Your task to perform on an android device: set the stopwatch Image 0: 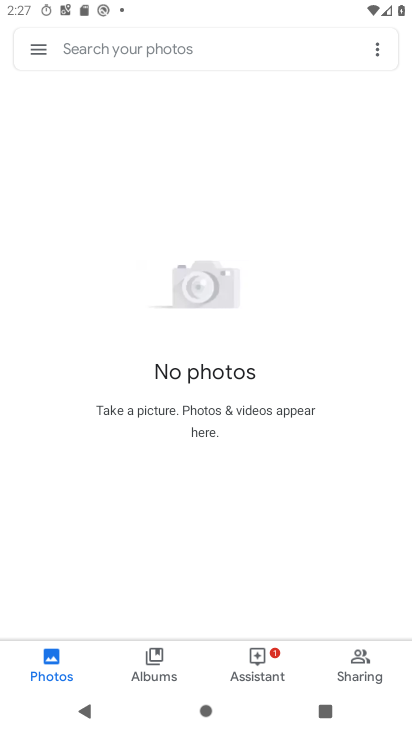
Step 0: press home button
Your task to perform on an android device: set the stopwatch Image 1: 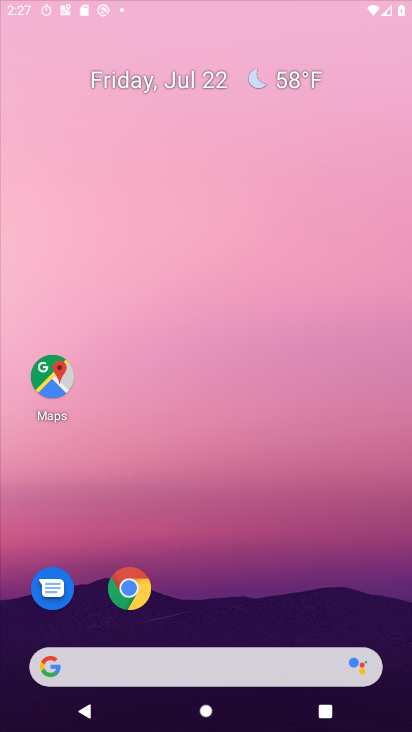
Step 1: drag from (286, 607) to (267, 255)
Your task to perform on an android device: set the stopwatch Image 2: 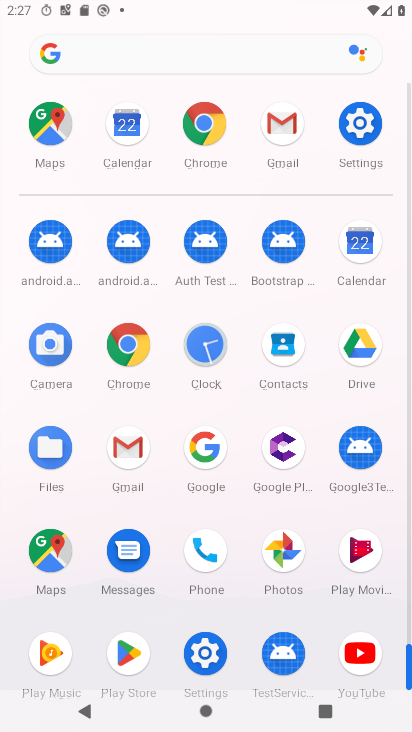
Step 2: click (191, 353)
Your task to perform on an android device: set the stopwatch Image 3: 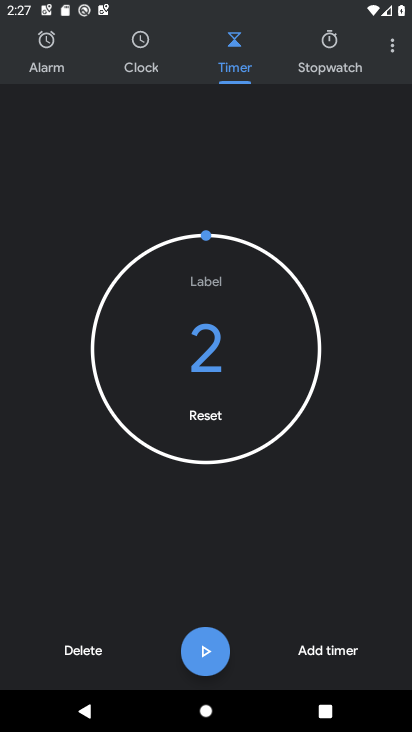
Step 3: click (300, 84)
Your task to perform on an android device: set the stopwatch Image 4: 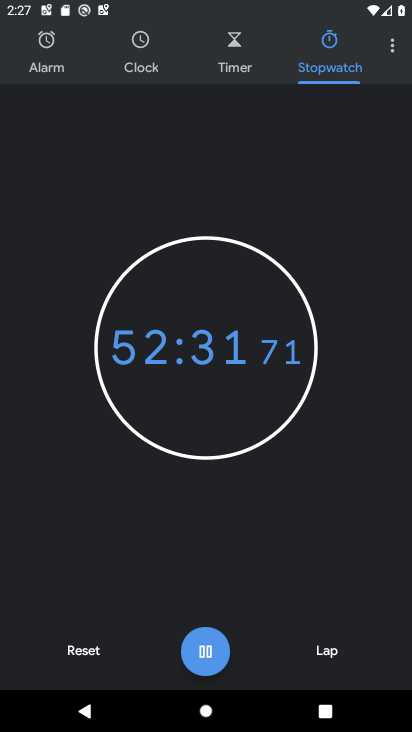
Step 4: click (87, 659)
Your task to perform on an android device: set the stopwatch Image 5: 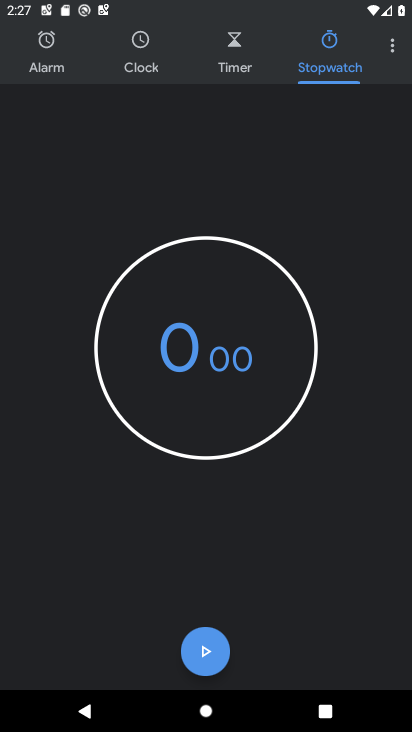
Step 5: click (215, 626)
Your task to perform on an android device: set the stopwatch Image 6: 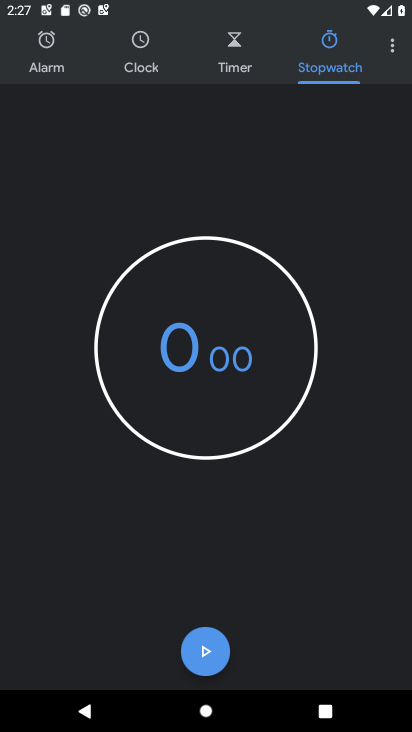
Step 6: click (203, 645)
Your task to perform on an android device: set the stopwatch Image 7: 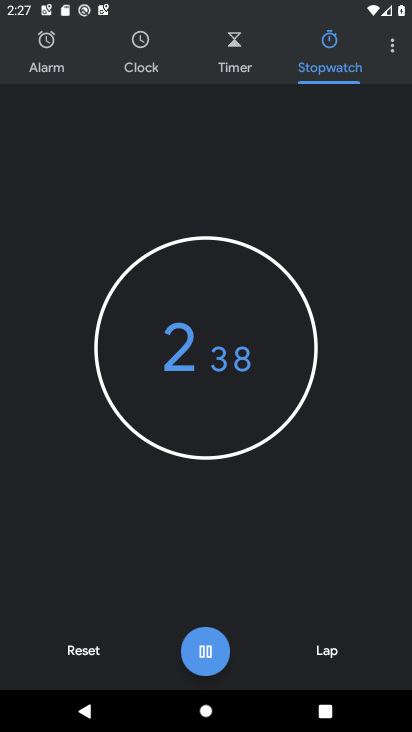
Step 7: task complete